Your task to perform on an android device: Open privacy settings Image 0: 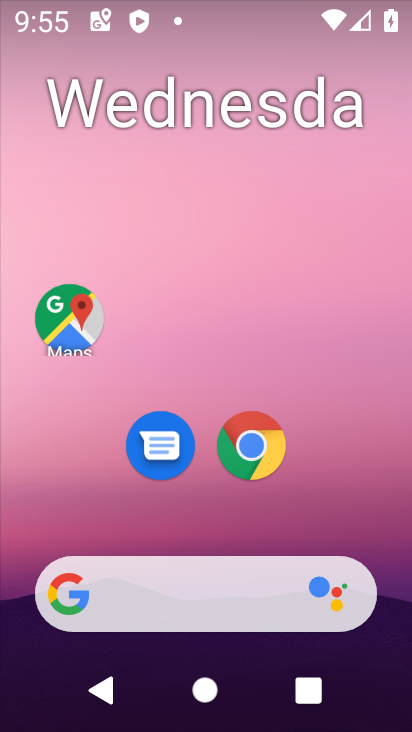
Step 0: click (252, 444)
Your task to perform on an android device: Open privacy settings Image 1: 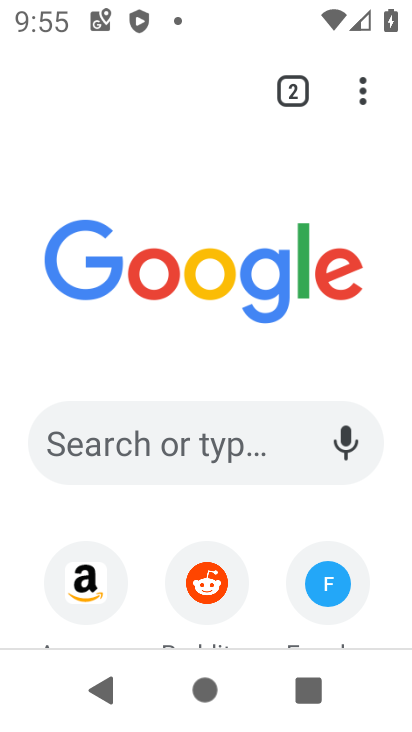
Step 1: click (361, 87)
Your task to perform on an android device: Open privacy settings Image 2: 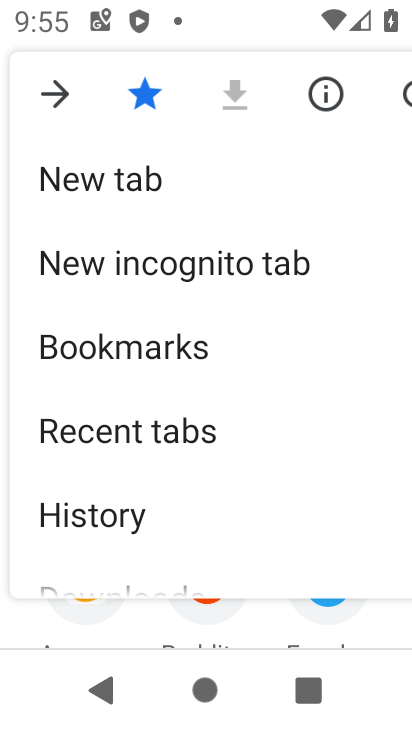
Step 2: drag from (156, 496) to (260, 138)
Your task to perform on an android device: Open privacy settings Image 3: 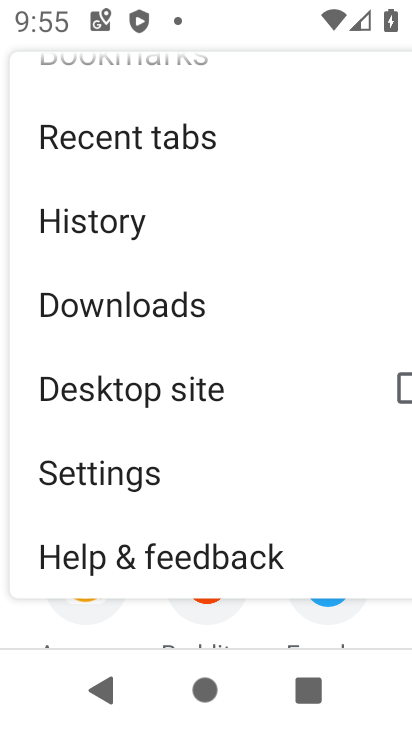
Step 3: click (124, 462)
Your task to perform on an android device: Open privacy settings Image 4: 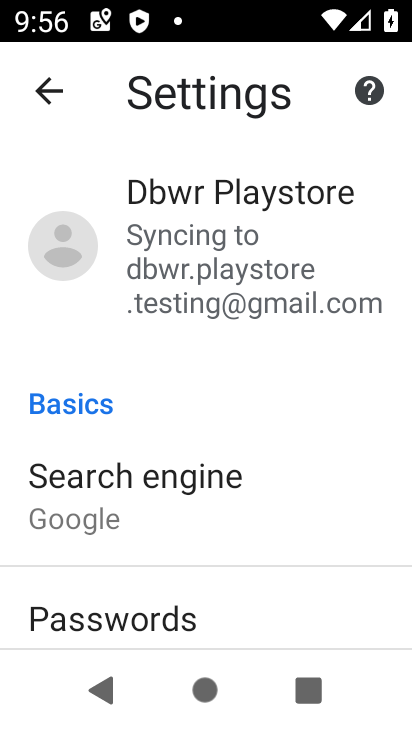
Step 4: drag from (177, 570) to (274, 153)
Your task to perform on an android device: Open privacy settings Image 5: 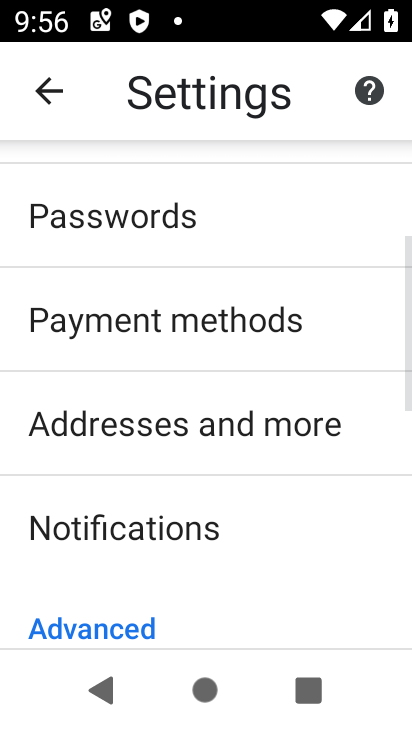
Step 5: drag from (162, 548) to (263, 127)
Your task to perform on an android device: Open privacy settings Image 6: 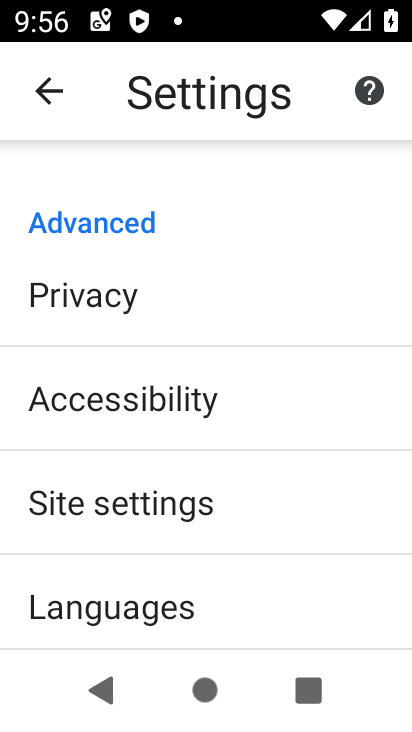
Step 6: click (91, 306)
Your task to perform on an android device: Open privacy settings Image 7: 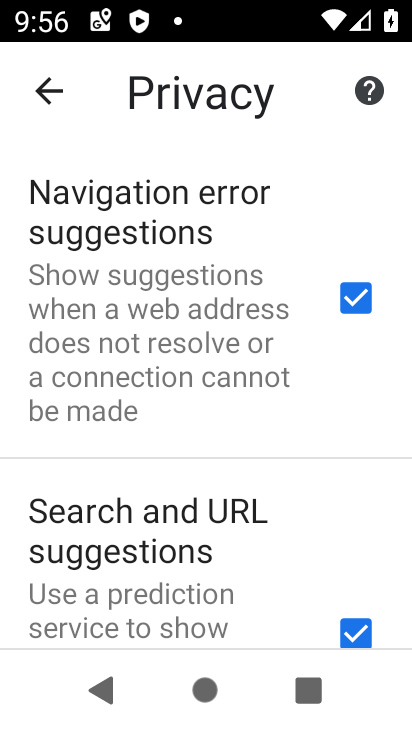
Step 7: task complete